Your task to perform on an android device: turn off data saver in the chrome app Image 0: 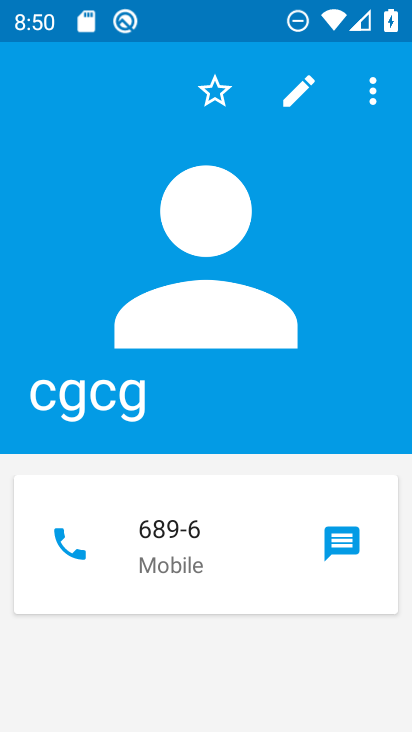
Step 0: press back button
Your task to perform on an android device: turn off data saver in the chrome app Image 1: 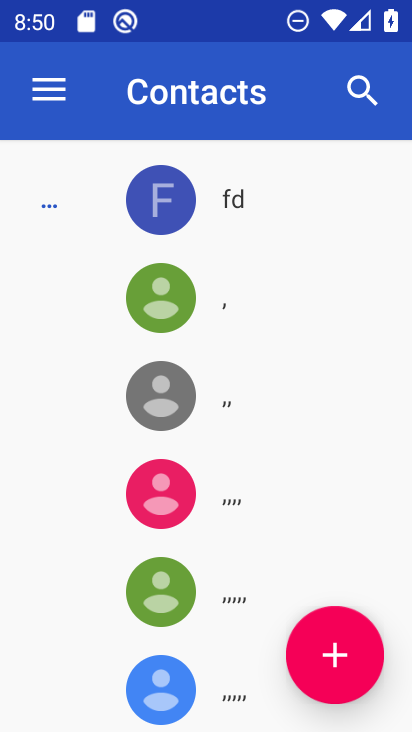
Step 1: press back button
Your task to perform on an android device: turn off data saver in the chrome app Image 2: 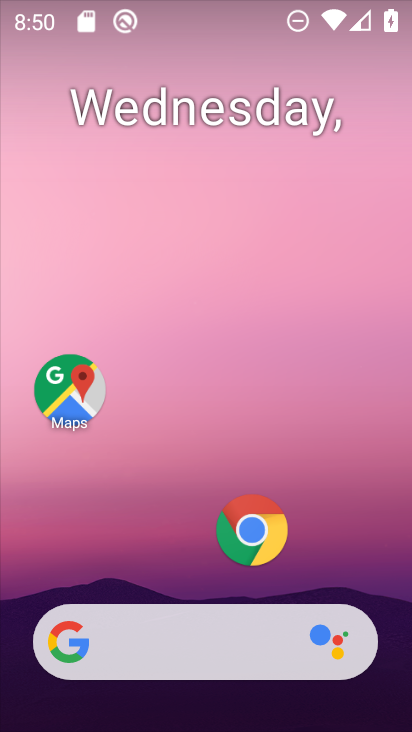
Step 2: click (264, 531)
Your task to perform on an android device: turn off data saver in the chrome app Image 3: 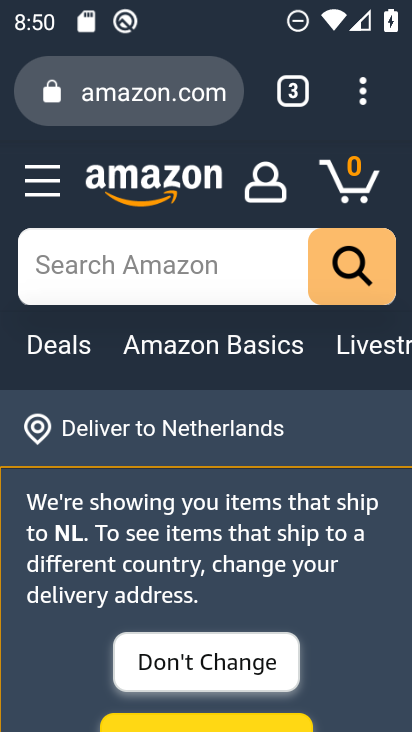
Step 3: drag from (361, 92) to (109, 550)
Your task to perform on an android device: turn off data saver in the chrome app Image 4: 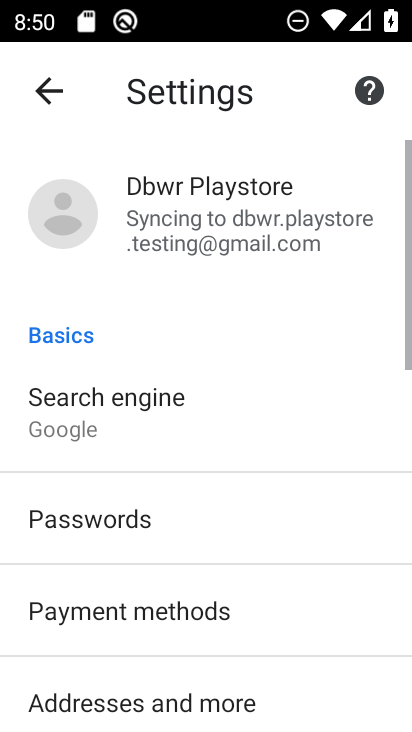
Step 4: drag from (142, 678) to (178, 307)
Your task to perform on an android device: turn off data saver in the chrome app Image 5: 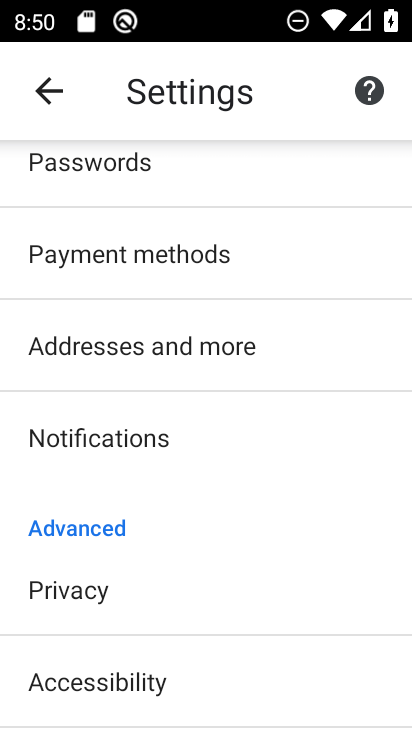
Step 5: drag from (141, 607) to (205, 168)
Your task to perform on an android device: turn off data saver in the chrome app Image 6: 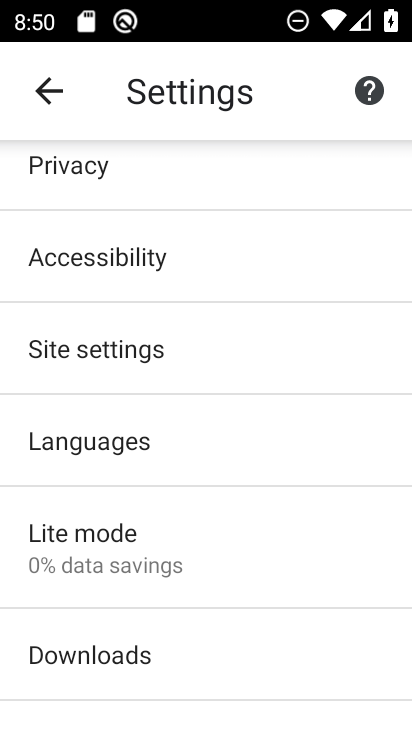
Step 6: click (92, 549)
Your task to perform on an android device: turn off data saver in the chrome app Image 7: 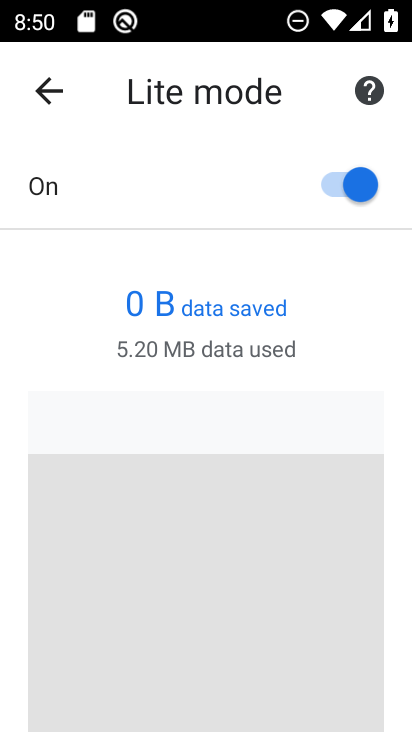
Step 7: click (357, 178)
Your task to perform on an android device: turn off data saver in the chrome app Image 8: 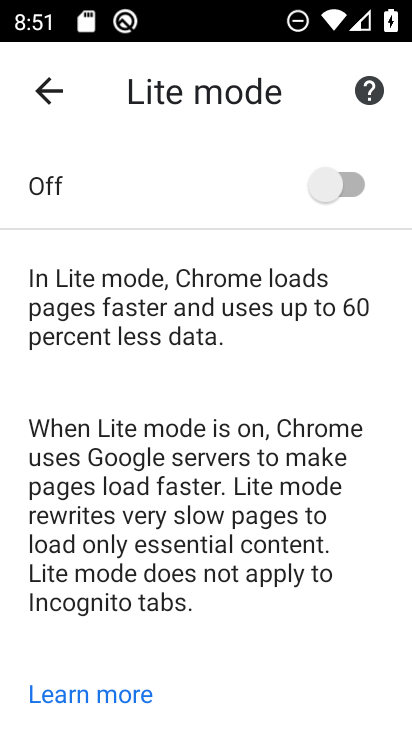
Step 8: task complete